Your task to perform on an android device: Is it going to rain this weekend? Image 0: 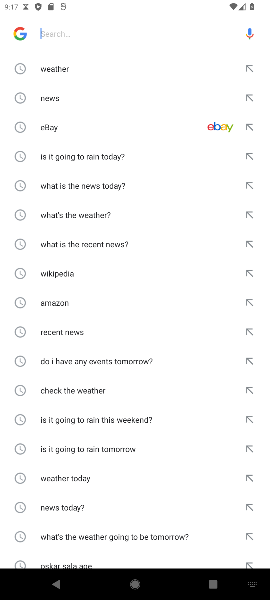
Step 0: press home button
Your task to perform on an android device: Is it going to rain this weekend? Image 1: 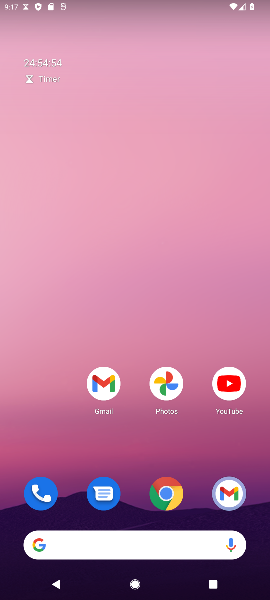
Step 1: drag from (51, 432) to (108, 131)
Your task to perform on an android device: Is it going to rain this weekend? Image 2: 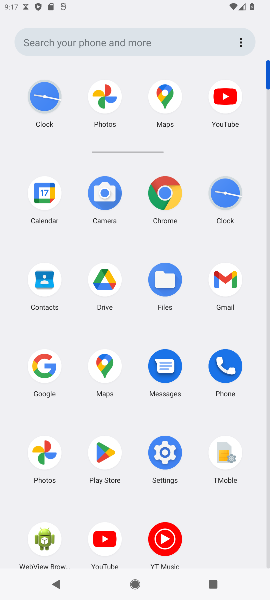
Step 2: click (41, 369)
Your task to perform on an android device: Is it going to rain this weekend? Image 3: 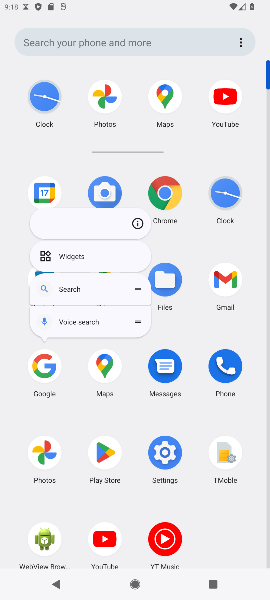
Step 3: click (49, 363)
Your task to perform on an android device: Is it going to rain this weekend? Image 4: 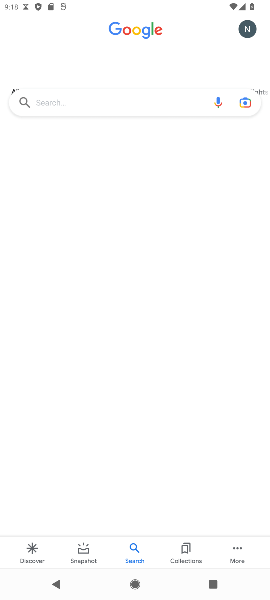
Step 4: click (110, 111)
Your task to perform on an android device: Is it going to rain this weekend? Image 5: 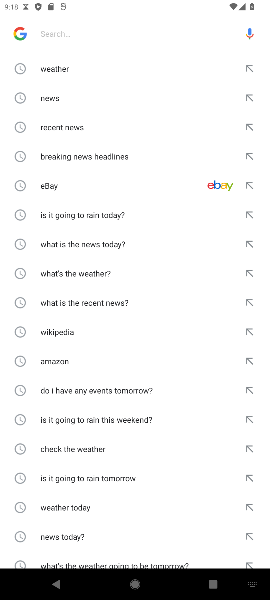
Step 5: click (50, 68)
Your task to perform on an android device: Is it going to rain this weekend? Image 6: 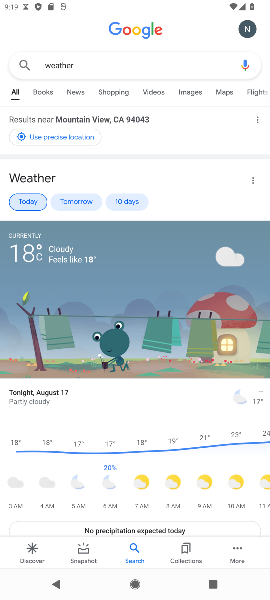
Step 6: task complete